Your task to perform on an android device: change the clock style Image 0: 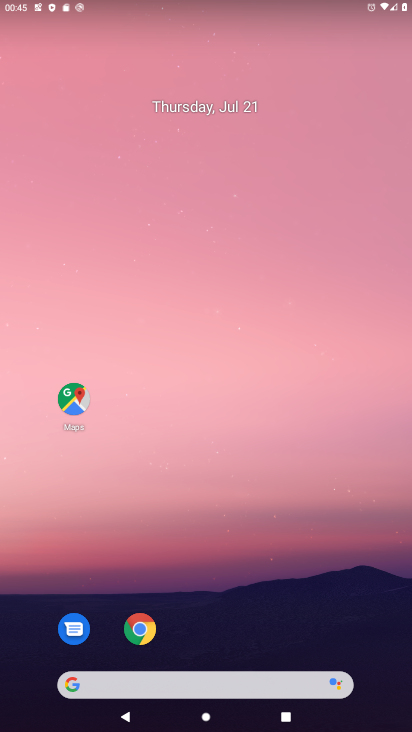
Step 0: drag from (268, 613) to (132, 1)
Your task to perform on an android device: change the clock style Image 1: 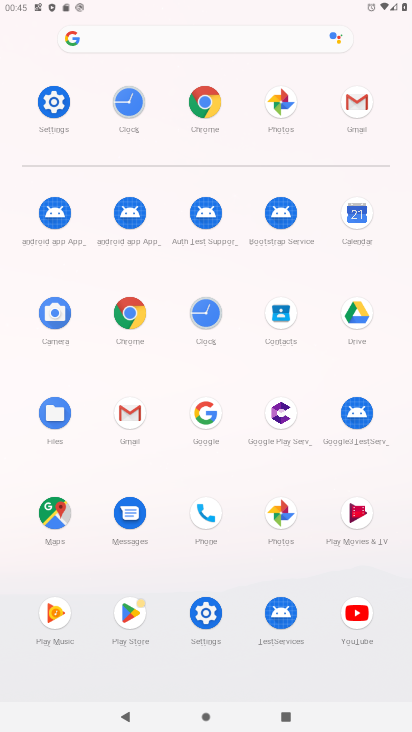
Step 1: click (199, 311)
Your task to perform on an android device: change the clock style Image 2: 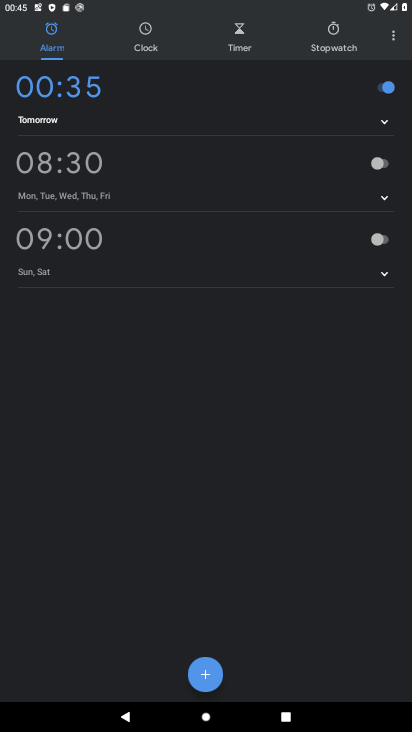
Step 2: click (393, 44)
Your task to perform on an android device: change the clock style Image 3: 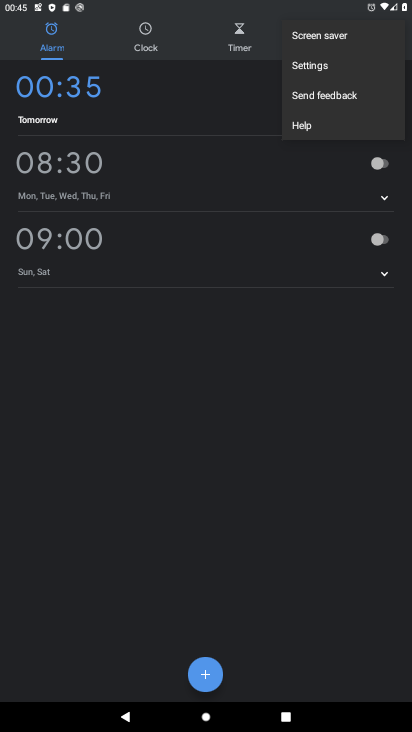
Step 3: click (323, 75)
Your task to perform on an android device: change the clock style Image 4: 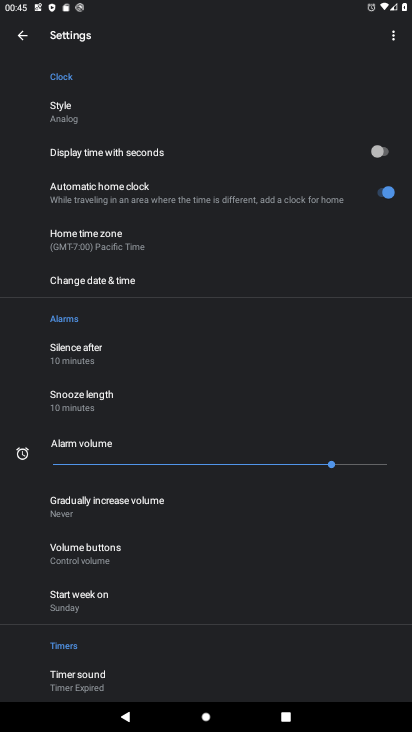
Step 4: click (56, 122)
Your task to perform on an android device: change the clock style Image 5: 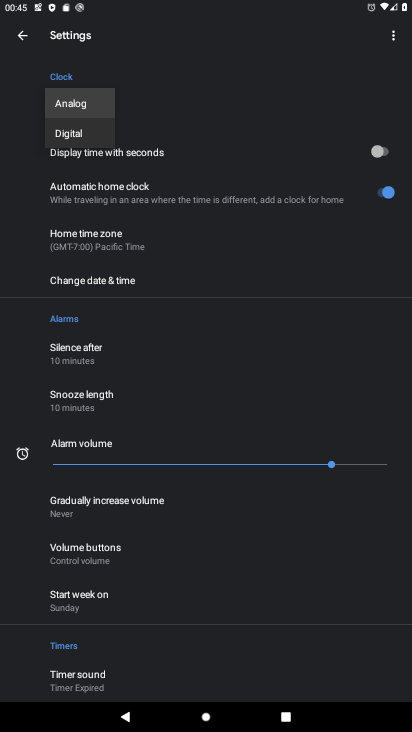
Step 5: click (97, 135)
Your task to perform on an android device: change the clock style Image 6: 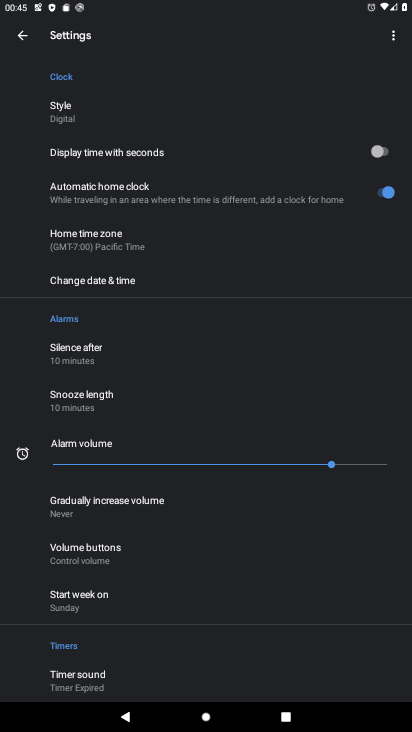
Step 6: task complete